Your task to perform on an android device: Open network settings Image 0: 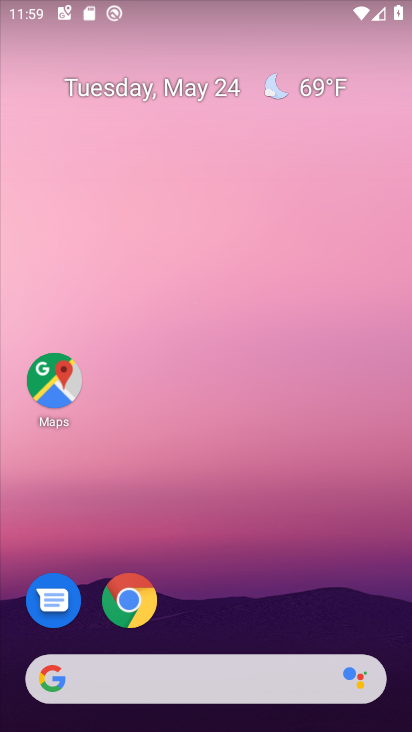
Step 0: drag from (381, 610) to (390, 172)
Your task to perform on an android device: Open network settings Image 1: 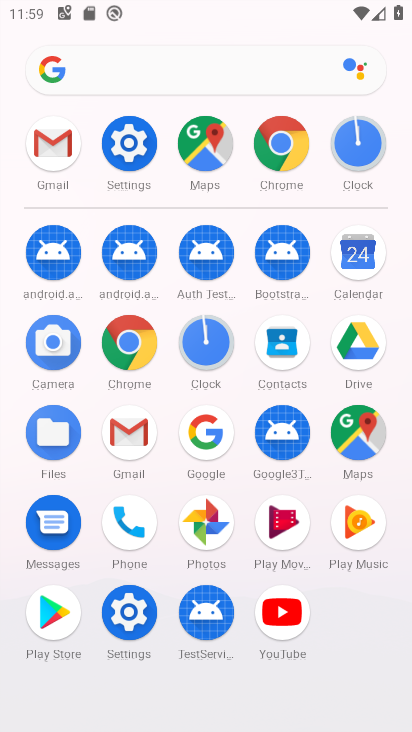
Step 1: click (135, 625)
Your task to perform on an android device: Open network settings Image 2: 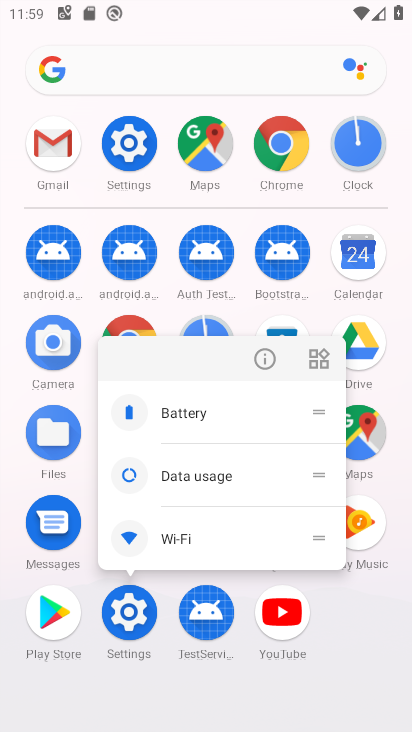
Step 2: click (135, 625)
Your task to perform on an android device: Open network settings Image 3: 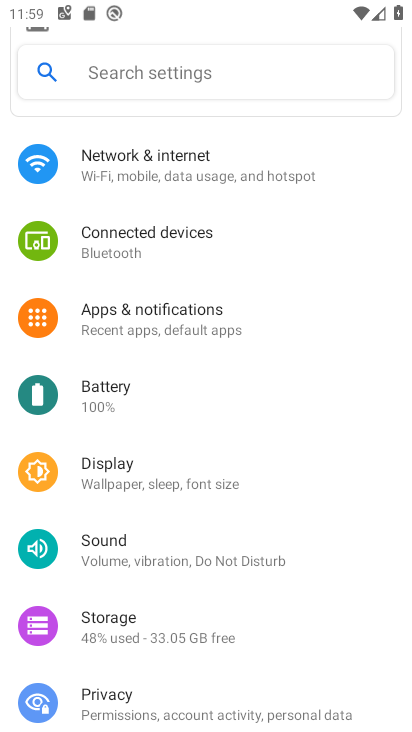
Step 3: drag from (281, 661) to (299, 523)
Your task to perform on an android device: Open network settings Image 4: 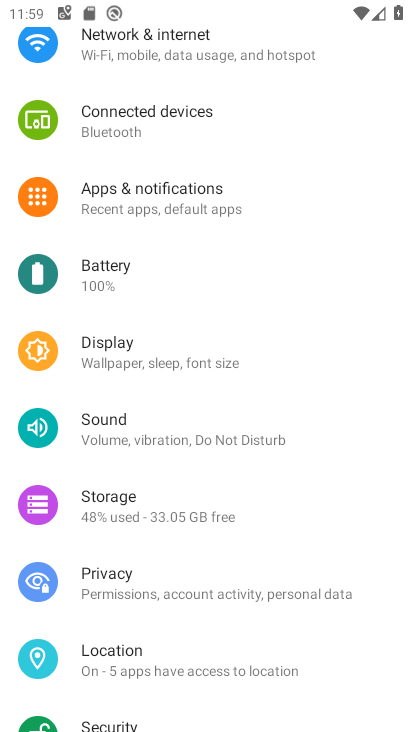
Step 4: drag from (359, 656) to (367, 491)
Your task to perform on an android device: Open network settings Image 5: 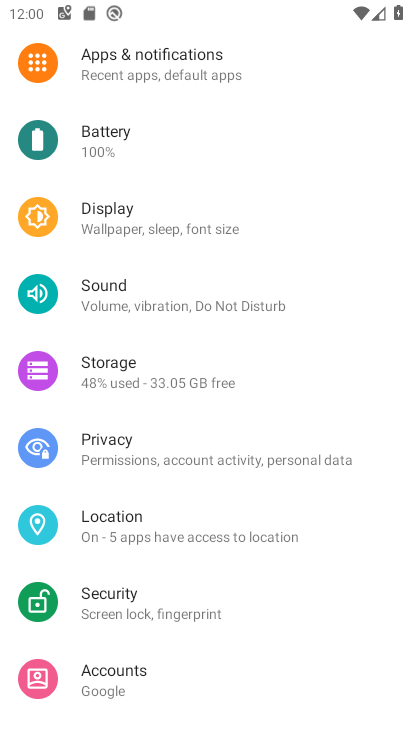
Step 5: drag from (359, 648) to (362, 552)
Your task to perform on an android device: Open network settings Image 6: 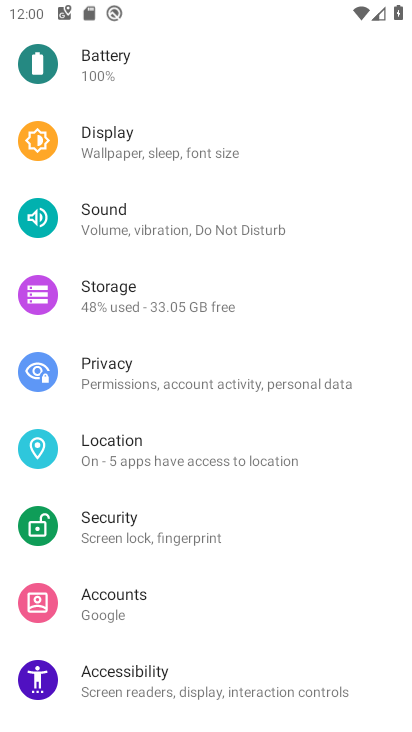
Step 6: drag from (362, 666) to (354, 514)
Your task to perform on an android device: Open network settings Image 7: 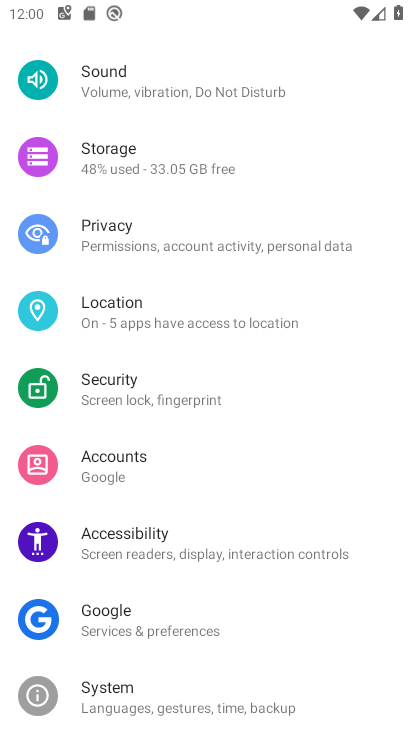
Step 7: drag from (375, 644) to (357, 494)
Your task to perform on an android device: Open network settings Image 8: 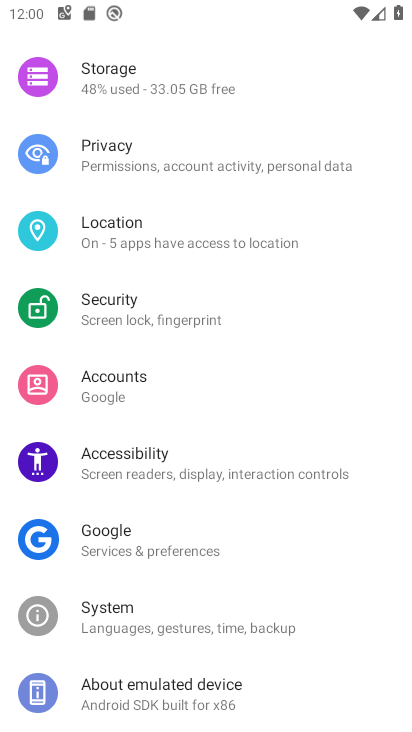
Step 8: drag from (365, 635) to (342, 455)
Your task to perform on an android device: Open network settings Image 9: 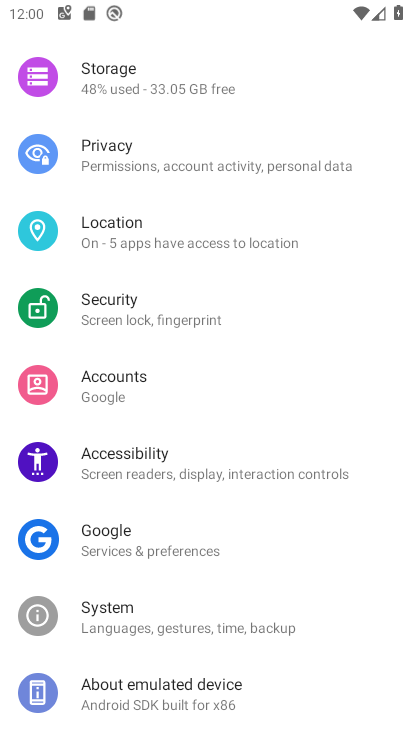
Step 9: drag from (347, 338) to (348, 412)
Your task to perform on an android device: Open network settings Image 10: 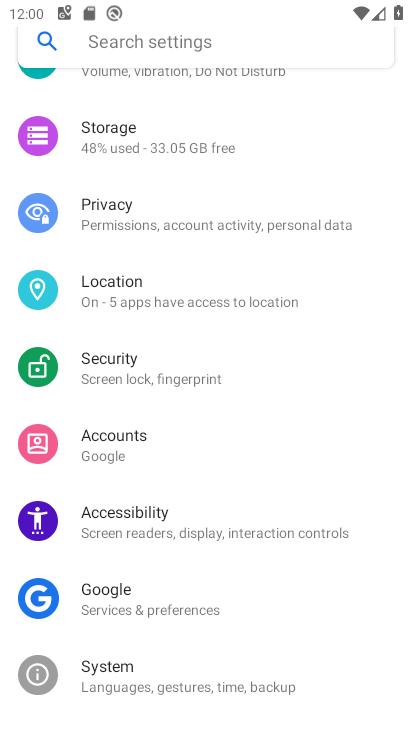
Step 10: drag from (354, 253) to (348, 366)
Your task to perform on an android device: Open network settings Image 11: 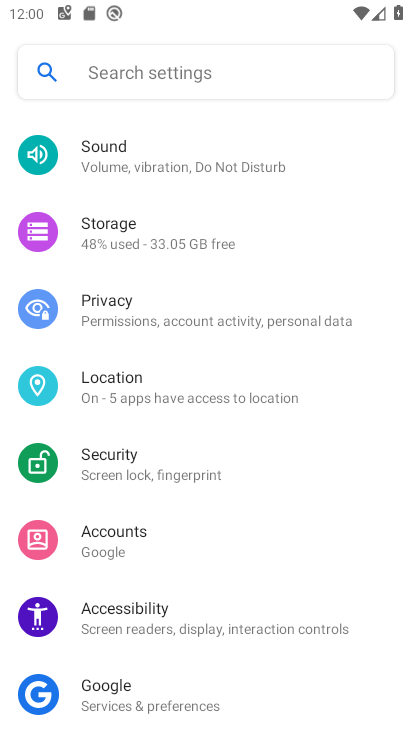
Step 11: drag from (352, 262) to (358, 365)
Your task to perform on an android device: Open network settings Image 12: 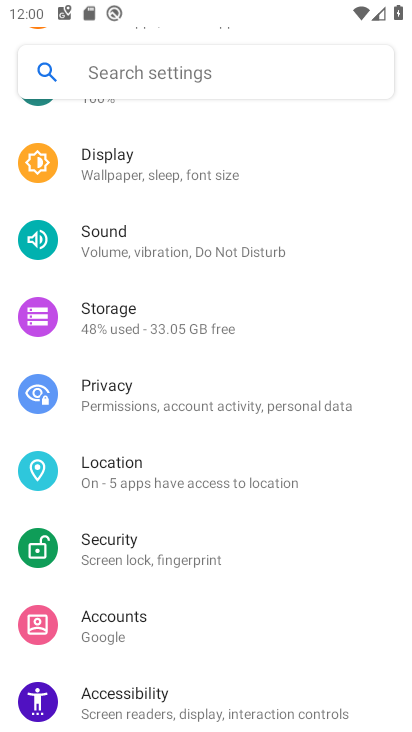
Step 12: drag from (353, 243) to (352, 348)
Your task to perform on an android device: Open network settings Image 13: 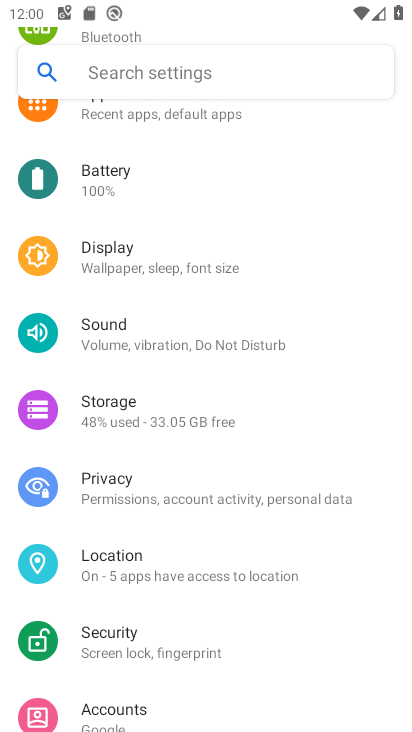
Step 13: drag from (345, 257) to (346, 348)
Your task to perform on an android device: Open network settings Image 14: 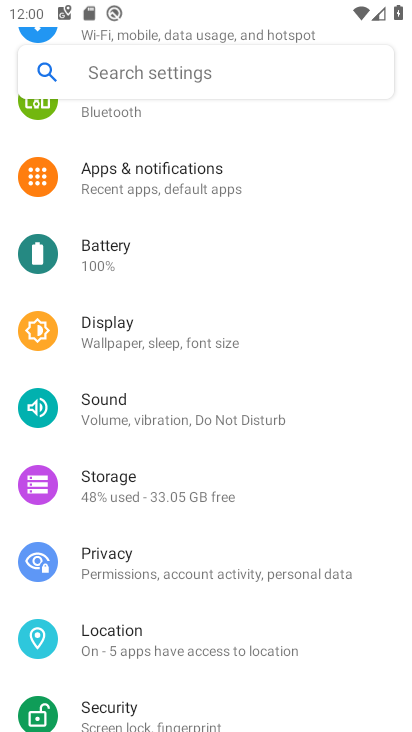
Step 14: drag from (341, 232) to (349, 326)
Your task to perform on an android device: Open network settings Image 15: 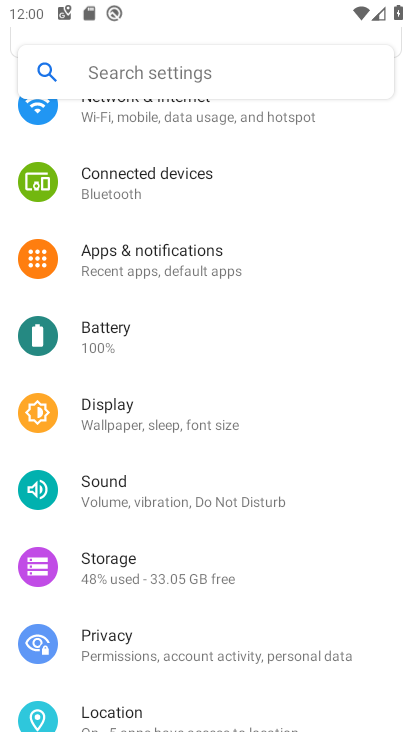
Step 15: drag from (350, 195) to (357, 311)
Your task to perform on an android device: Open network settings Image 16: 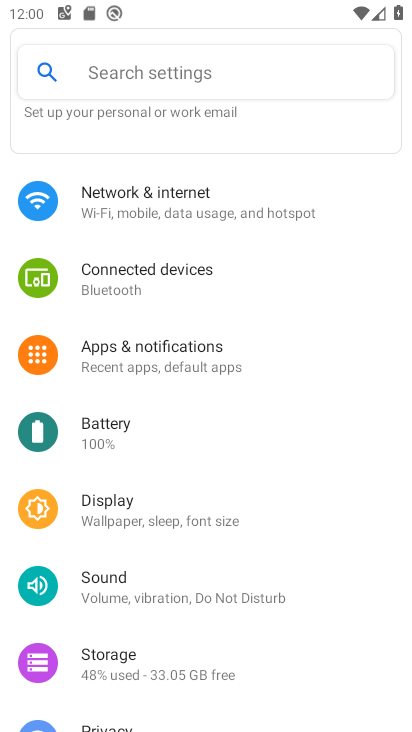
Step 16: drag from (341, 196) to (351, 331)
Your task to perform on an android device: Open network settings Image 17: 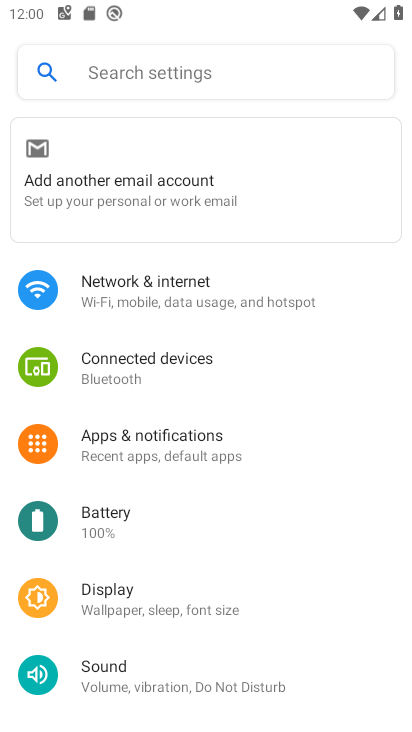
Step 17: click (215, 301)
Your task to perform on an android device: Open network settings Image 18: 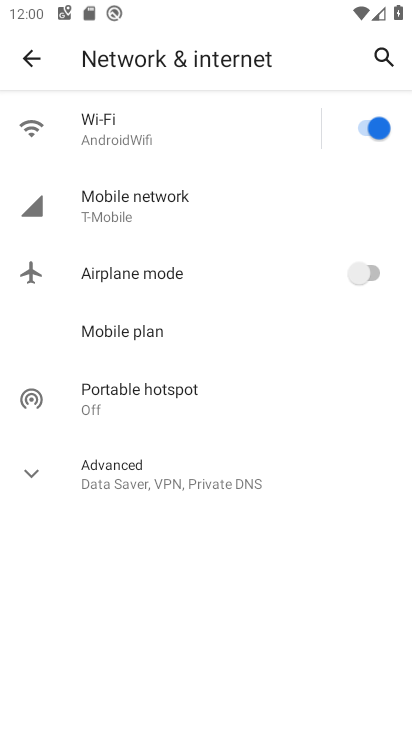
Step 18: task complete